Your task to perform on an android device: Open ESPN.com Image 0: 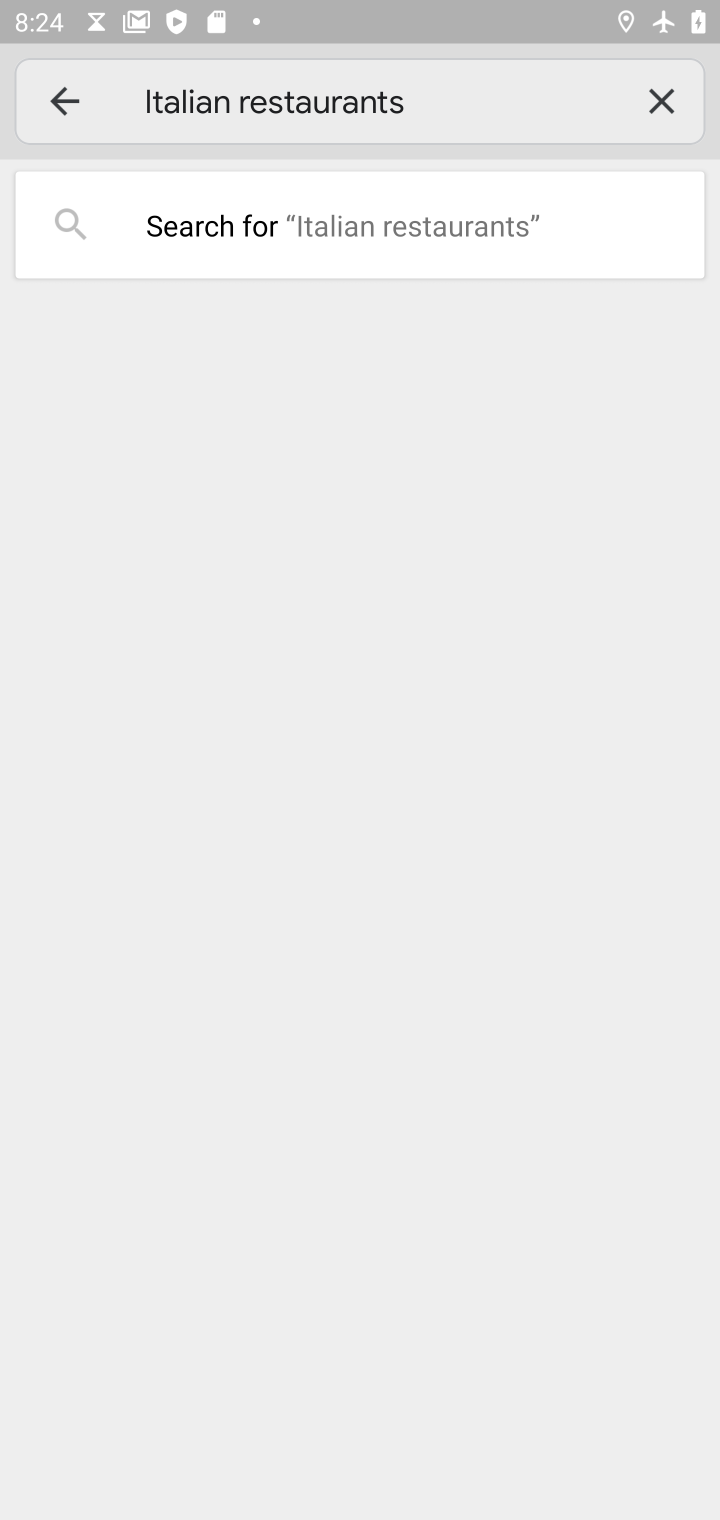
Step 0: press home button
Your task to perform on an android device: Open ESPN.com Image 1: 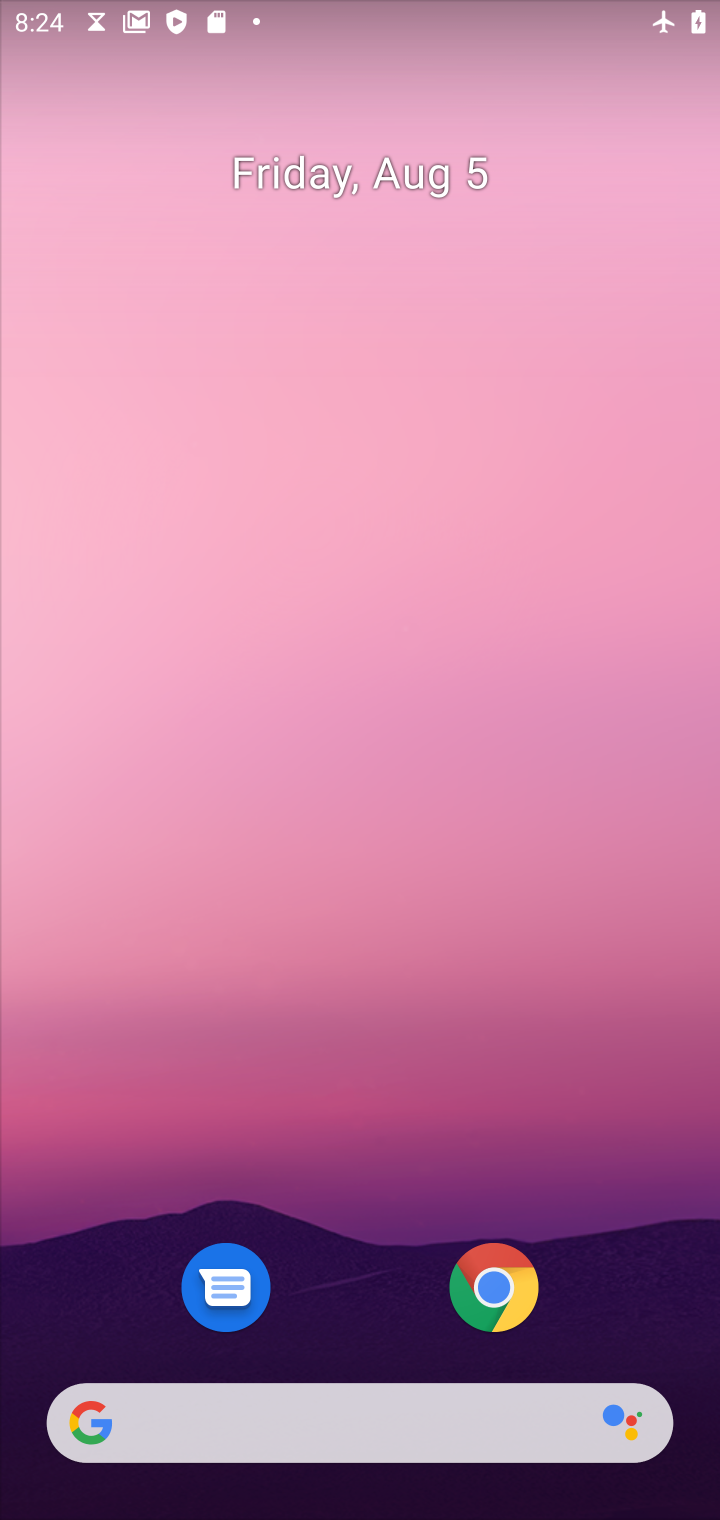
Step 1: drag from (375, 851) to (375, 217)
Your task to perform on an android device: Open ESPN.com Image 2: 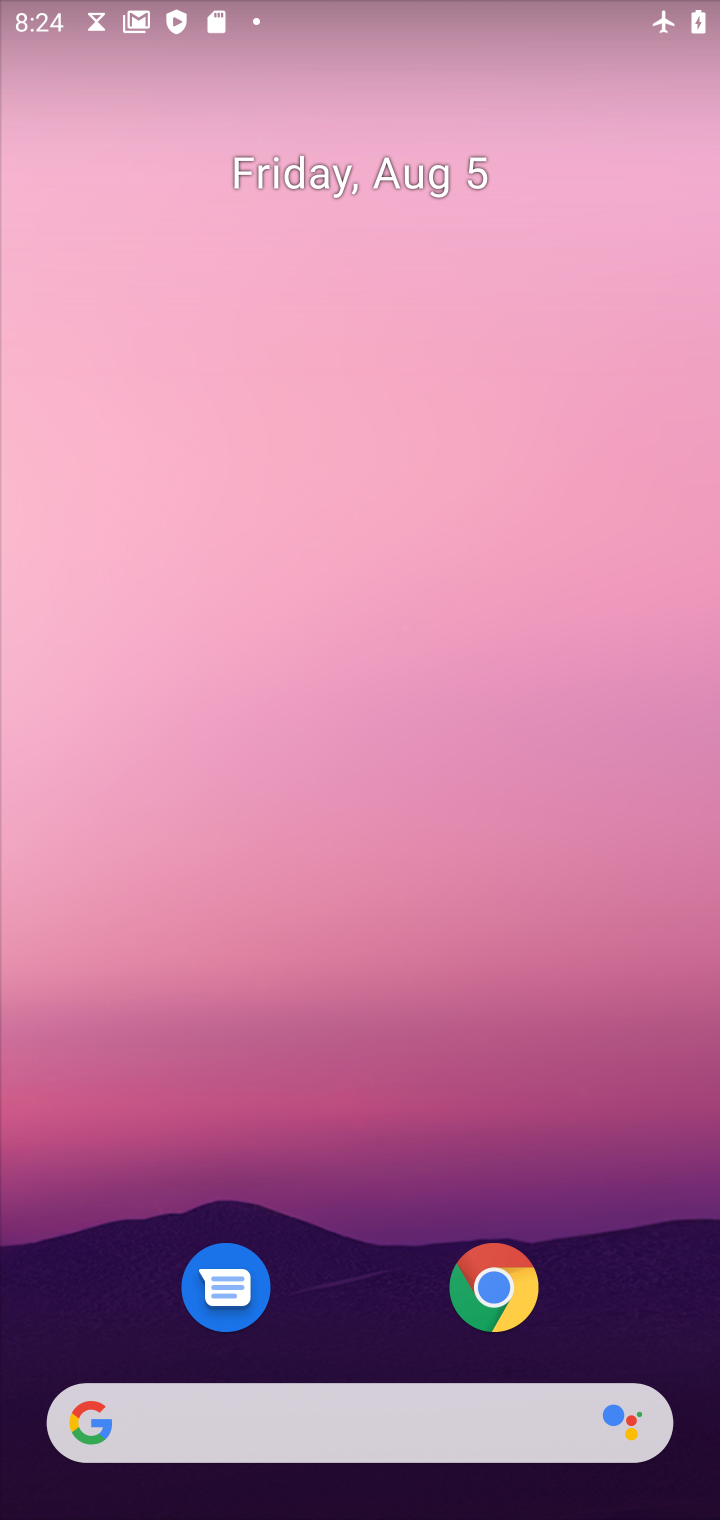
Step 2: drag from (331, 739) to (333, 91)
Your task to perform on an android device: Open ESPN.com Image 3: 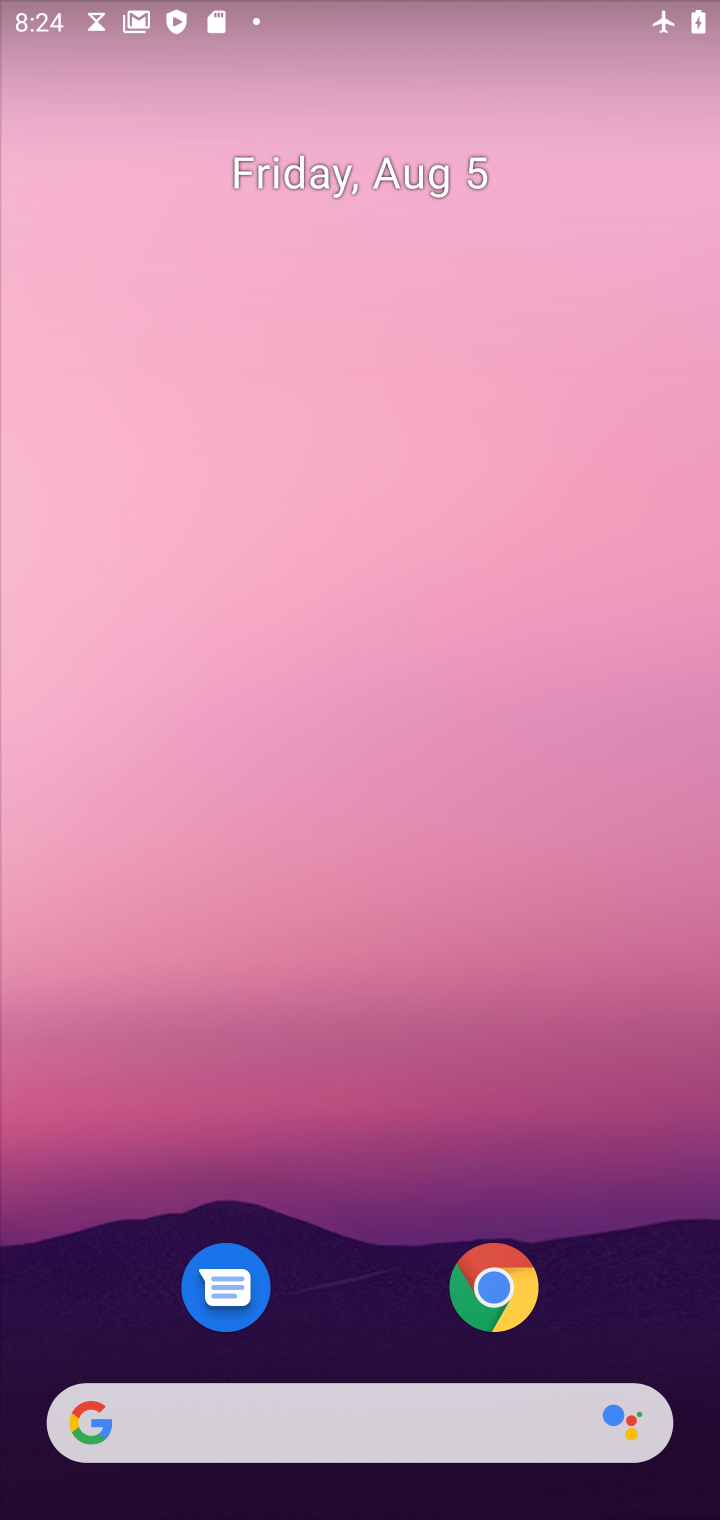
Step 3: click (493, 1291)
Your task to perform on an android device: Open ESPN.com Image 4: 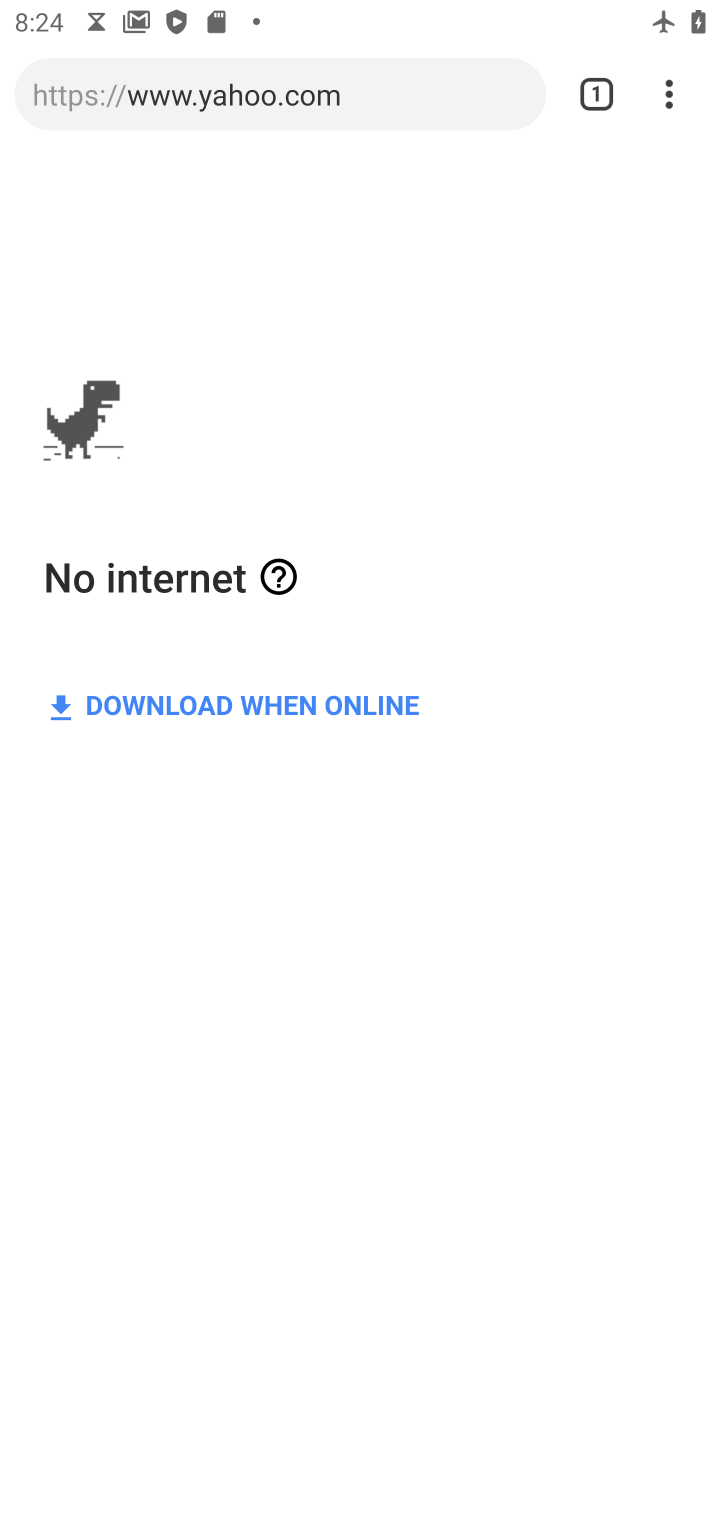
Step 4: task complete